Your task to perform on an android device: turn notification dots off Image 0: 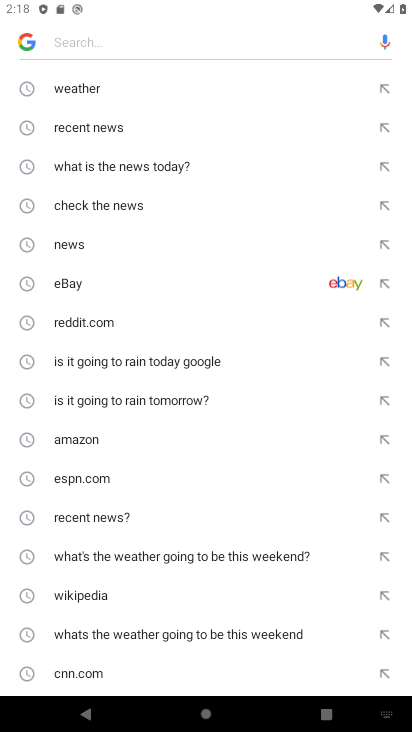
Step 0: press home button
Your task to perform on an android device: turn notification dots off Image 1: 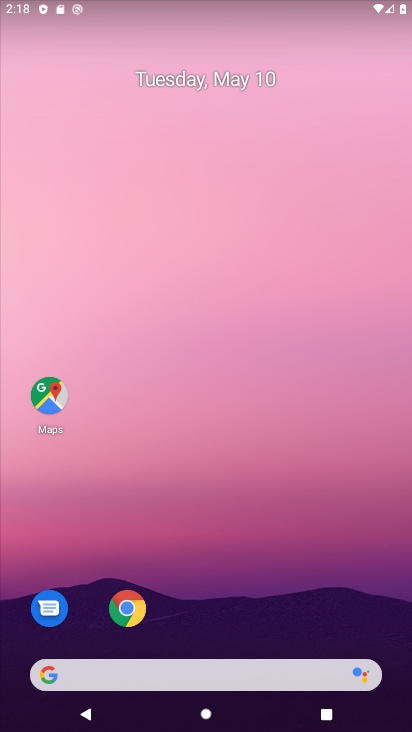
Step 1: drag from (378, 641) to (266, 70)
Your task to perform on an android device: turn notification dots off Image 2: 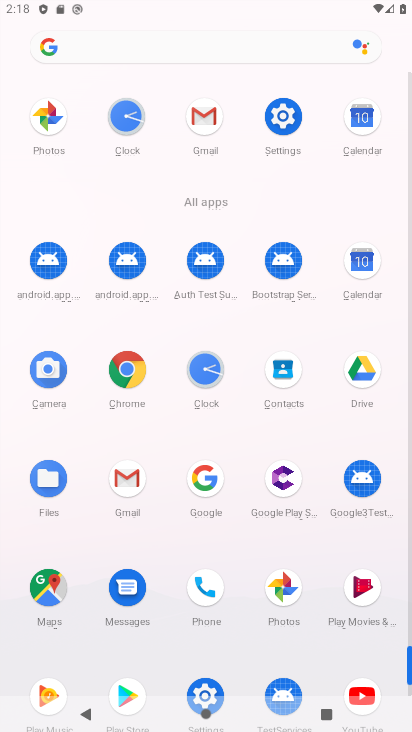
Step 2: click (409, 693)
Your task to perform on an android device: turn notification dots off Image 3: 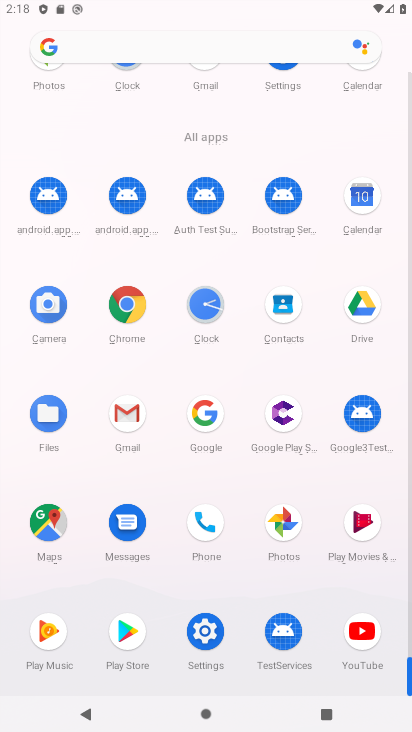
Step 3: click (207, 631)
Your task to perform on an android device: turn notification dots off Image 4: 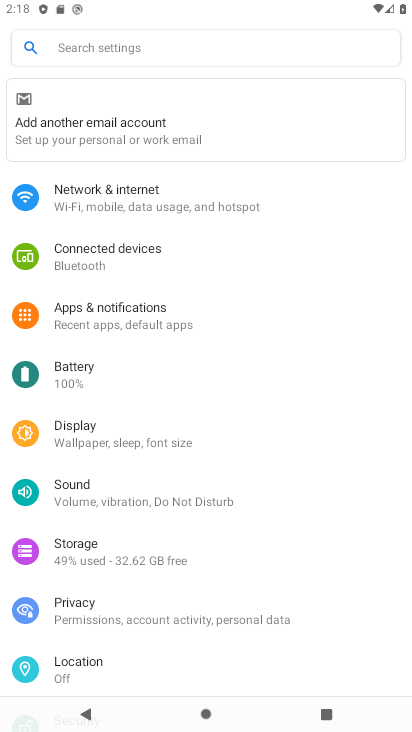
Step 4: click (84, 321)
Your task to perform on an android device: turn notification dots off Image 5: 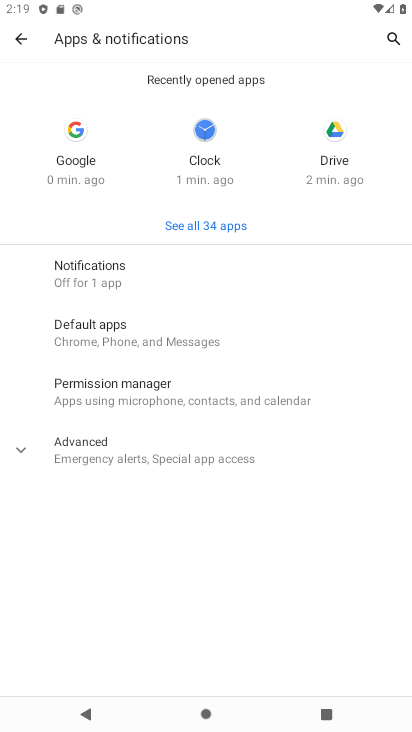
Step 5: click (89, 273)
Your task to perform on an android device: turn notification dots off Image 6: 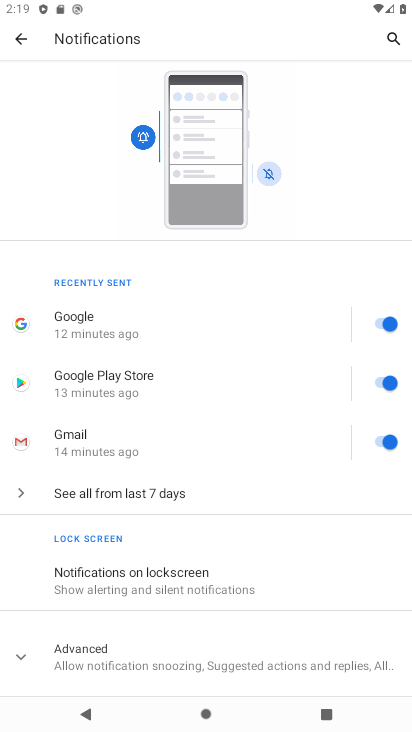
Step 6: drag from (222, 577) to (223, 321)
Your task to perform on an android device: turn notification dots off Image 7: 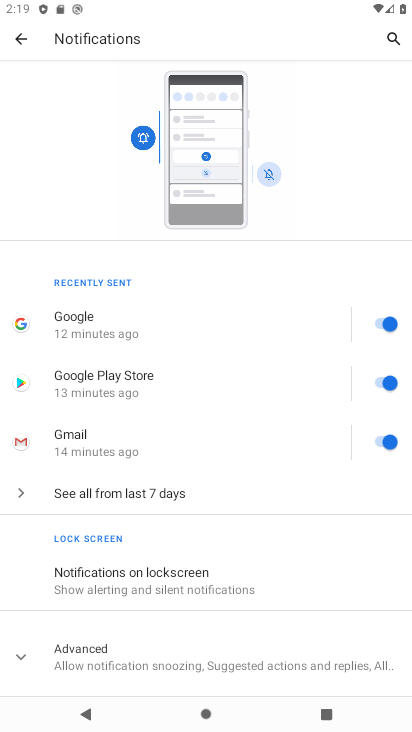
Step 7: click (17, 655)
Your task to perform on an android device: turn notification dots off Image 8: 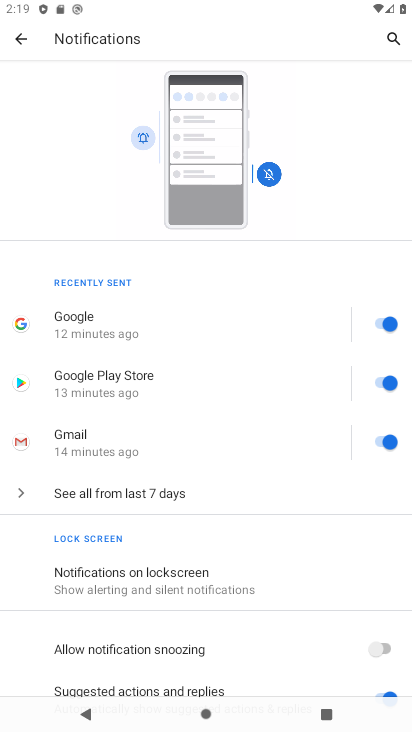
Step 8: task complete